Your task to perform on an android device: Open battery settings Image 0: 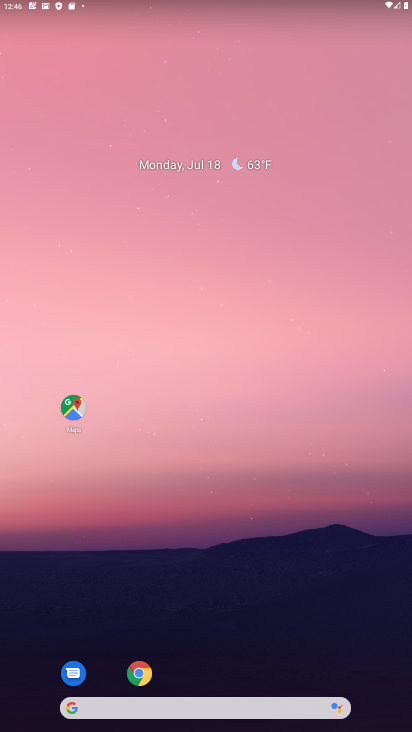
Step 0: drag from (225, 675) to (247, 201)
Your task to perform on an android device: Open battery settings Image 1: 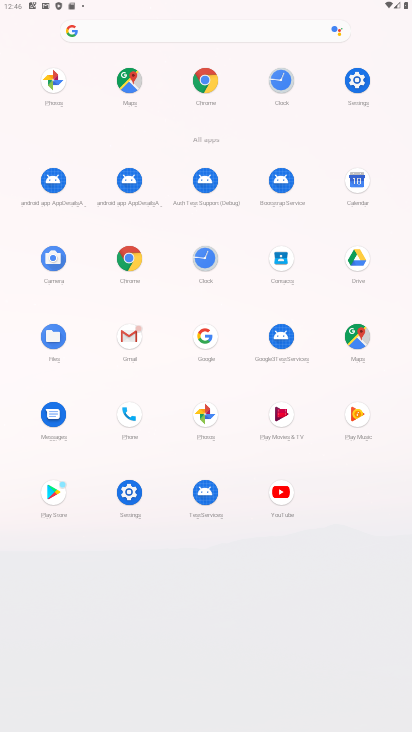
Step 1: click (349, 78)
Your task to perform on an android device: Open battery settings Image 2: 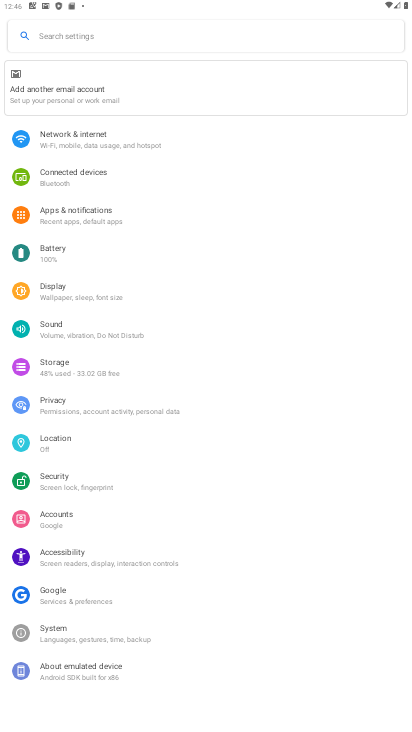
Step 2: click (66, 247)
Your task to perform on an android device: Open battery settings Image 3: 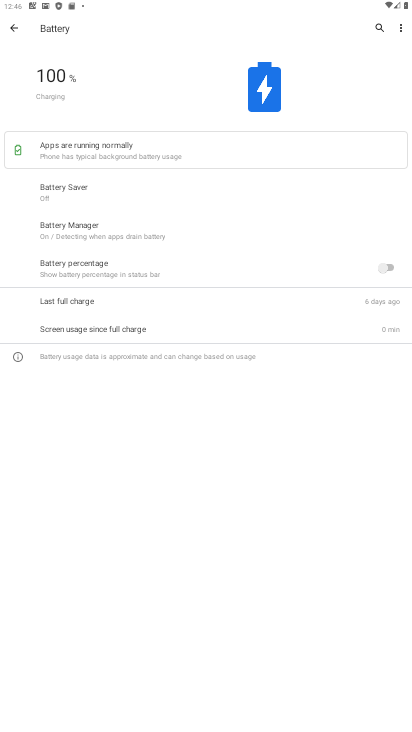
Step 3: task complete